Your task to perform on an android device: open a new tab in the chrome app Image 0: 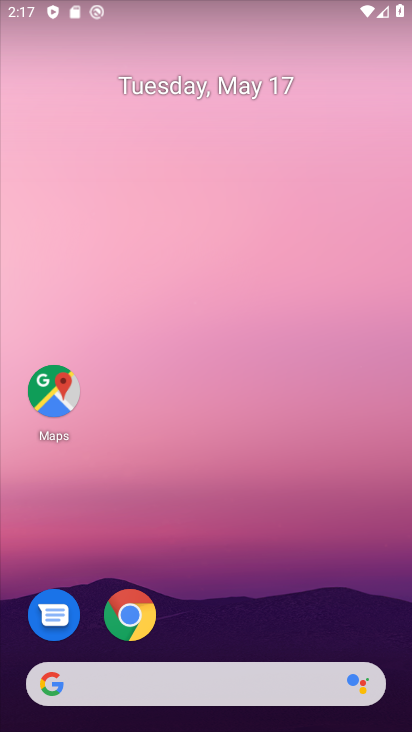
Step 0: click (123, 618)
Your task to perform on an android device: open a new tab in the chrome app Image 1: 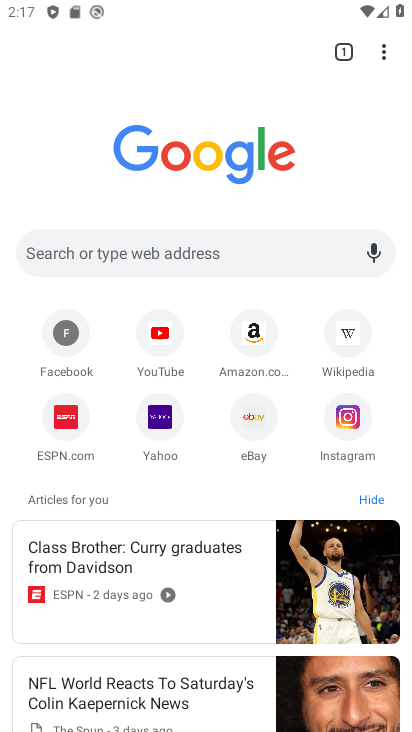
Step 1: click (383, 54)
Your task to perform on an android device: open a new tab in the chrome app Image 2: 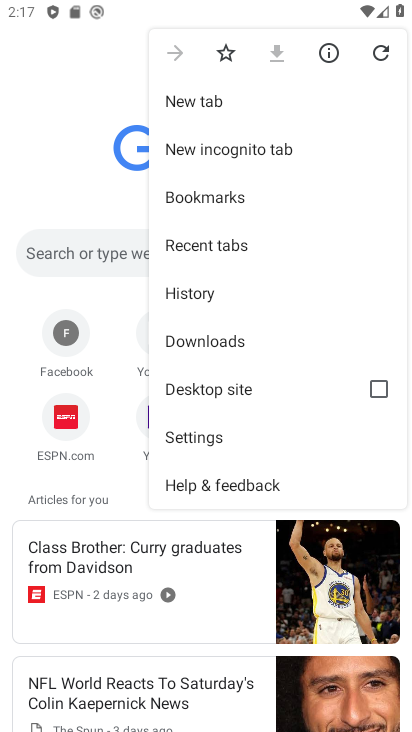
Step 2: click (190, 94)
Your task to perform on an android device: open a new tab in the chrome app Image 3: 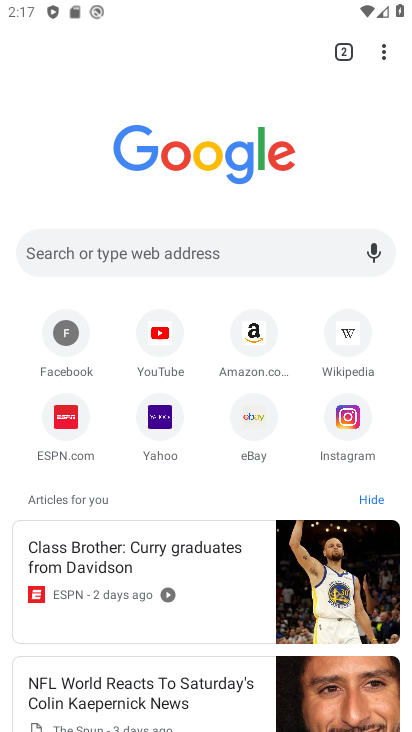
Step 3: task complete